Your task to perform on an android device: change text size in settings app Image 0: 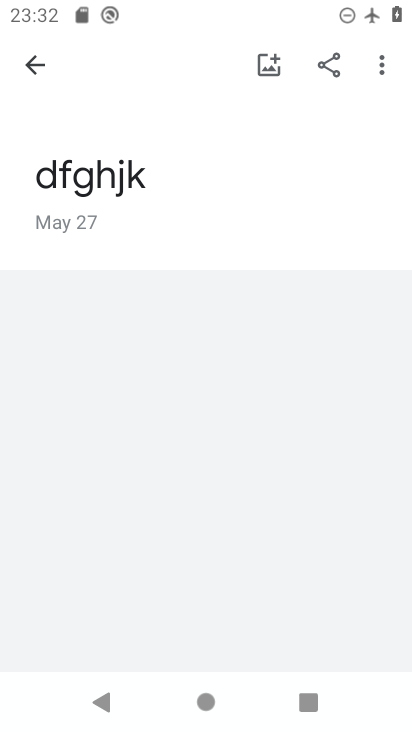
Step 0: press home button
Your task to perform on an android device: change text size in settings app Image 1: 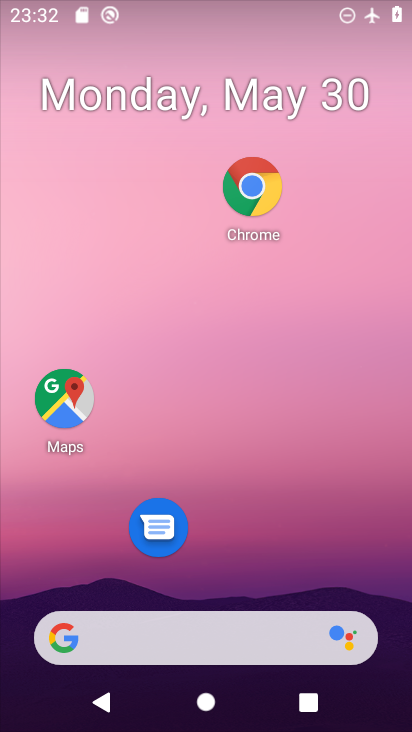
Step 1: drag from (260, 585) to (240, 300)
Your task to perform on an android device: change text size in settings app Image 2: 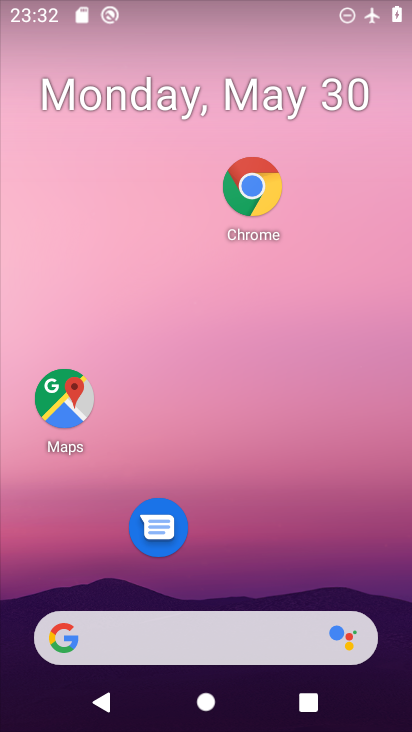
Step 2: drag from (259, 474) to (250, 216)
Your task to perform on an android device: change text size in settings app Image 3: 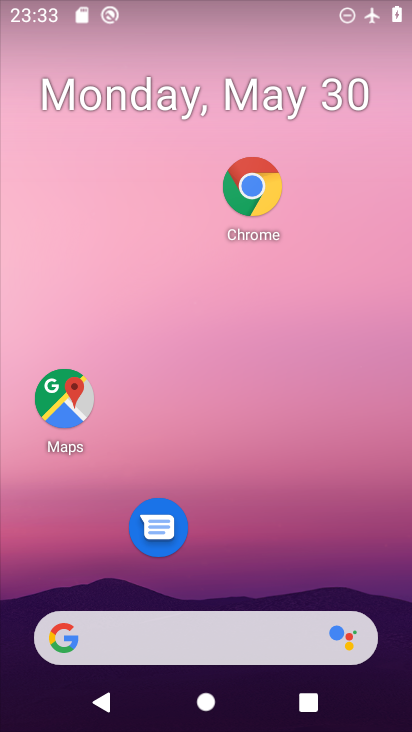
Step 3: drag from (211, 569) to (233, 262)
Your task to perform on an android device: change text size in settings app Image 4: 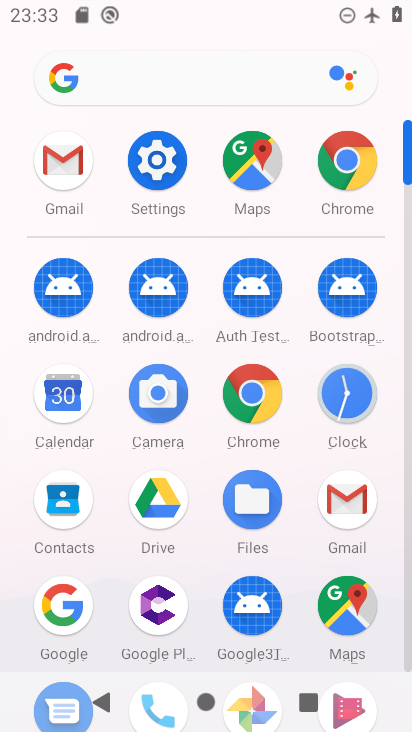
Step 4: click (148, 162)
Your task to perform on an android device: change text size in settings app Image 5: 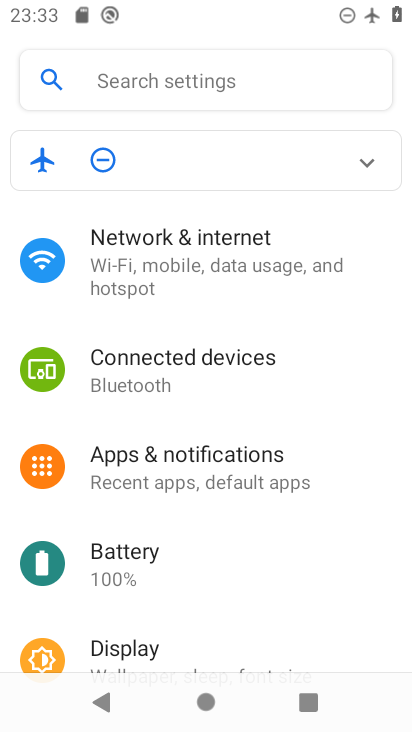
Step 5: drag from (217, 613) to (245, 190)
Your task to perform on an android device: change text size in settings app Image 6: 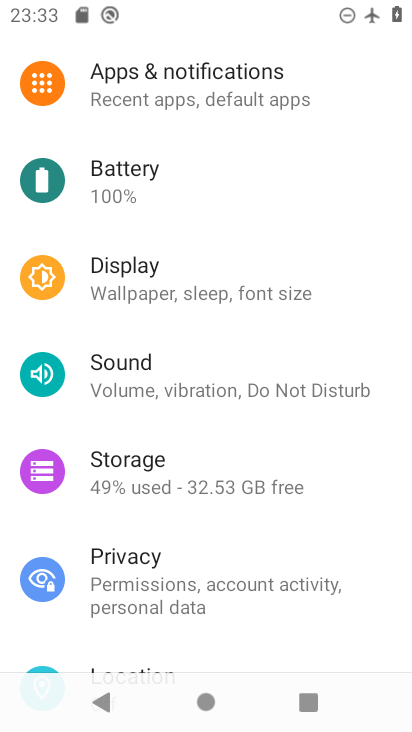
Step 6: drag from (252, 566) to (266, 254)
Your task to perform on an android device: change text size in settings app Image 7: 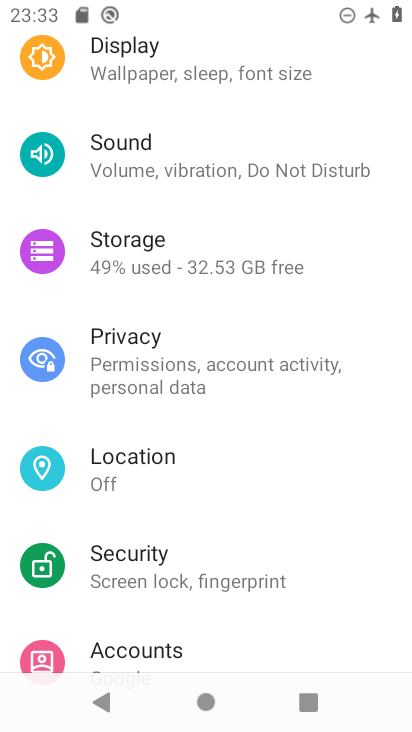
Step 7: drag from (203, 581) to (241, 169)
Your task to perform on an android device: change text size in settings app Image 8: 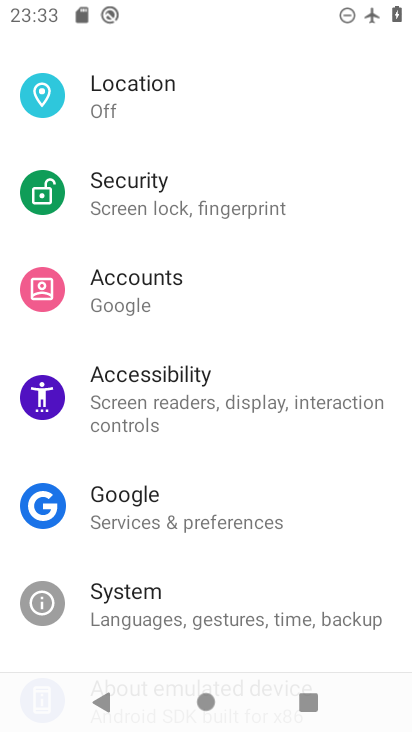
Step 8: drag from (210, 563) to (202, 232)
Your task to perform on an android device: change text size in settings app Image 9: 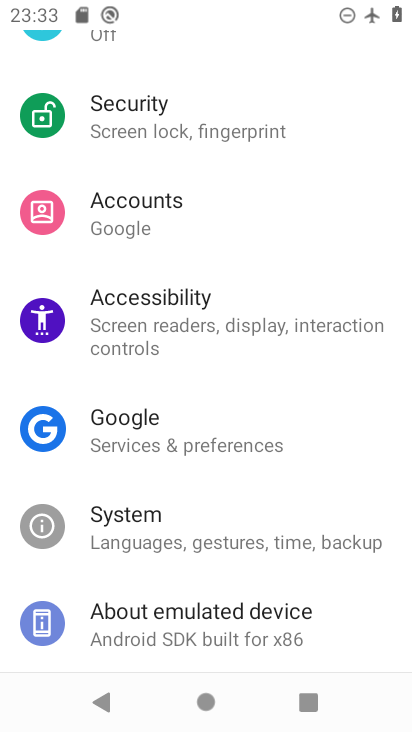
Step 9: click (243, 639)
Your task to perform on an android device: change text size in settings app Image 10: 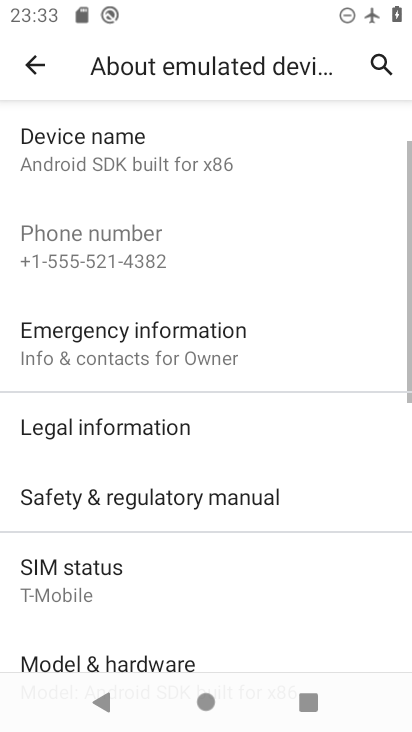
Step 10: drag from (246, 548) to (255, 202)
Your task to perform on an android device: change text size in settings app Image 11: 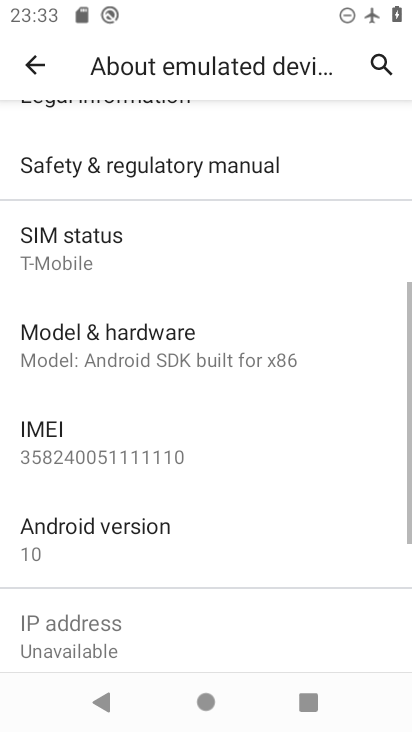
Step 11: drag from (167, 549) to (262, 217)
Your task to perform on an android device: change text size in settings app Image 12: 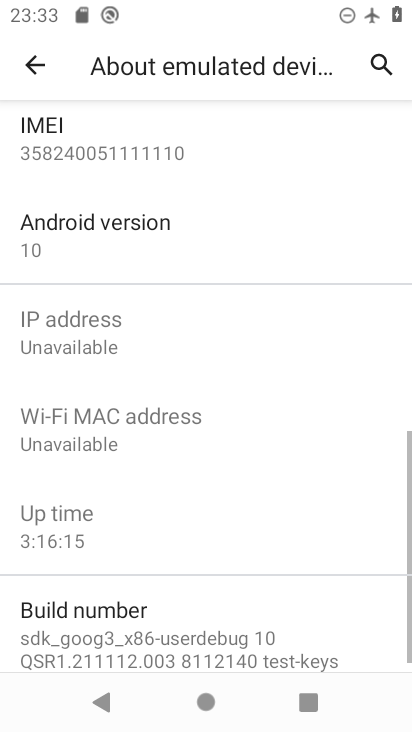
Step 12: click (29, 57)
Your task to perform on an android device: change text size in settings app Image 13: 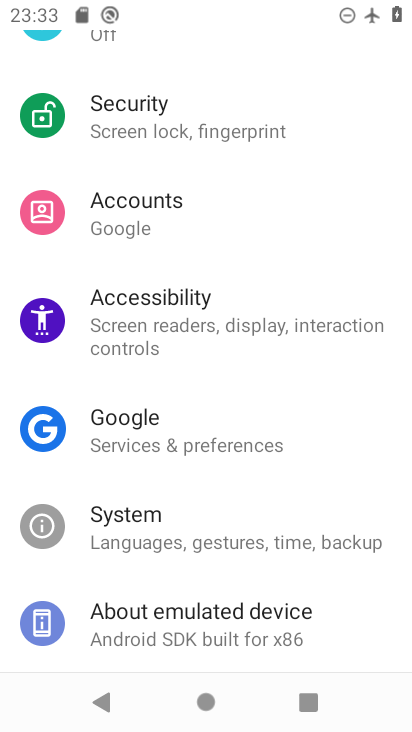
Step 13: drag from (209, 133) to (225, 612)
Your task to perform on an android device: change text size in settings app Image 14: 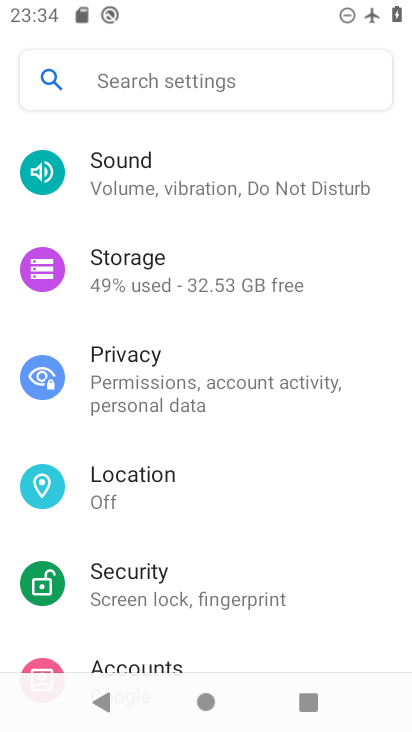
Step 14: drag from (231, 205) to (277, 201)
Your task to perform on an android device: change text size in settings app Image 15: 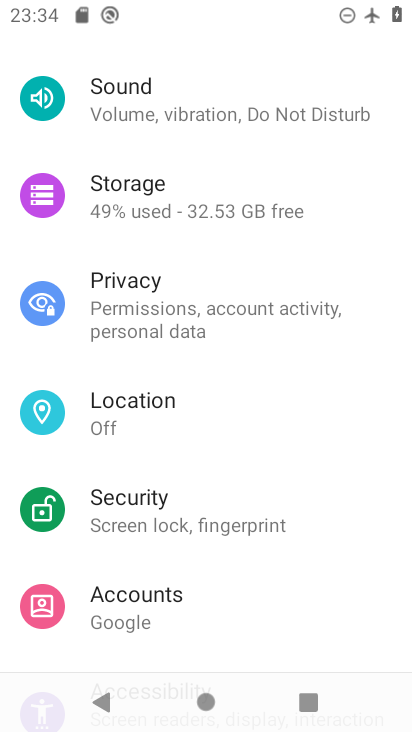
Step 15: drag from (160, 576) to (283, 261)
Your task to perform on an android device: change text size in settings app Image 16: 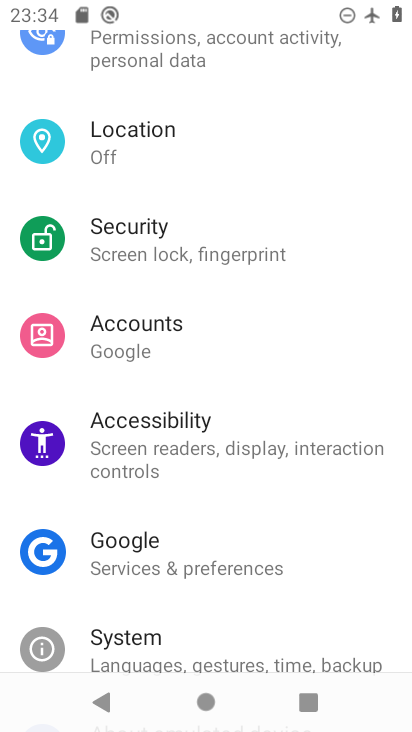
Step 16: drag from (222, 580) to (275, 402)
Your task to perform on an android device: change text size in settings app Image 17: 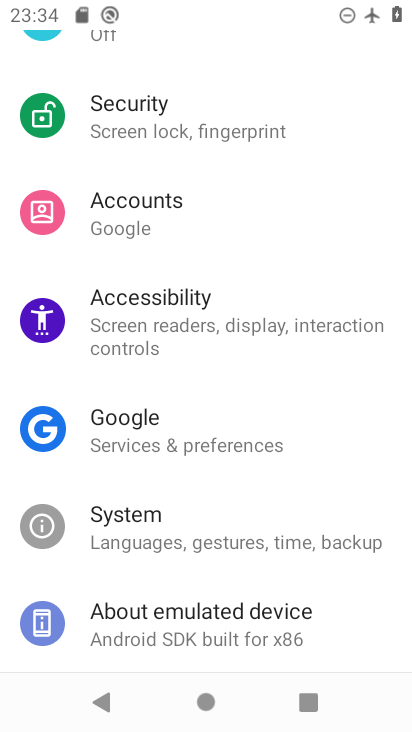
Step 17: click (212, 534)
Your task to perform on an android device: change text size in settings app Image 18: 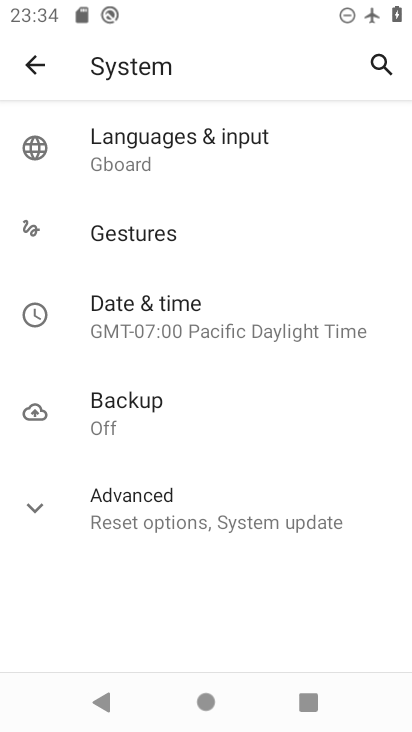
Step 18: click (31, 58)
Your task to perform on an android device: change text size in settings app Image 19: 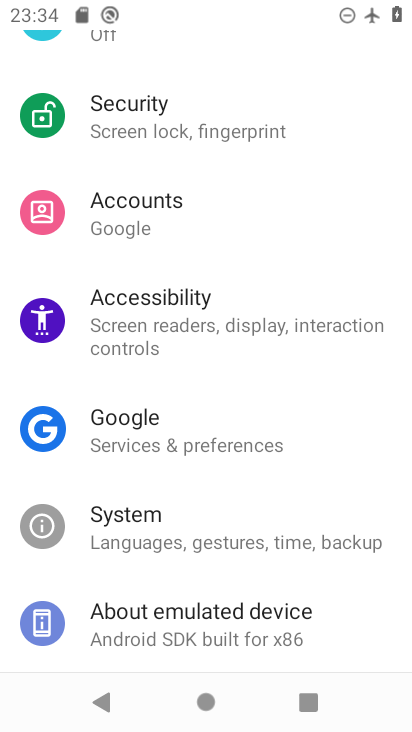
Step 19: click (155, 316)
Your task to perform on an android device: change text size in settings app Image 20: 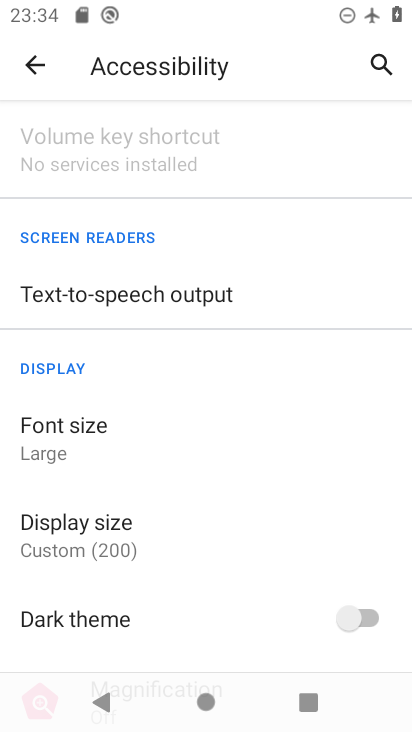
Step 20: click (102, 429)
Your task to perform on an android device: change text size in settings app Image 21: 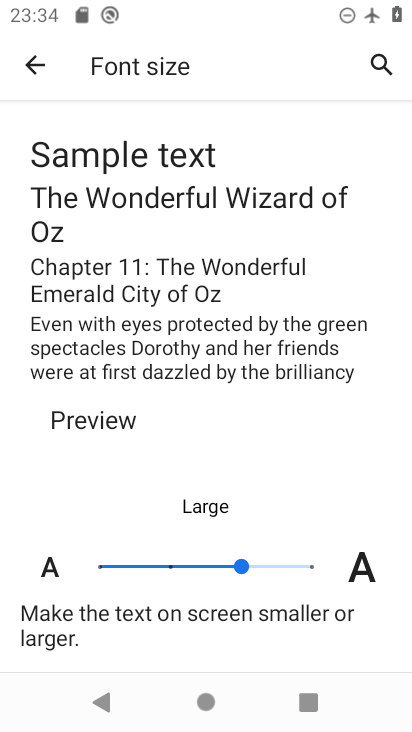
Step 21: click (177, 571)
Your task to perform on an android device: change text size in settings app Image 22: 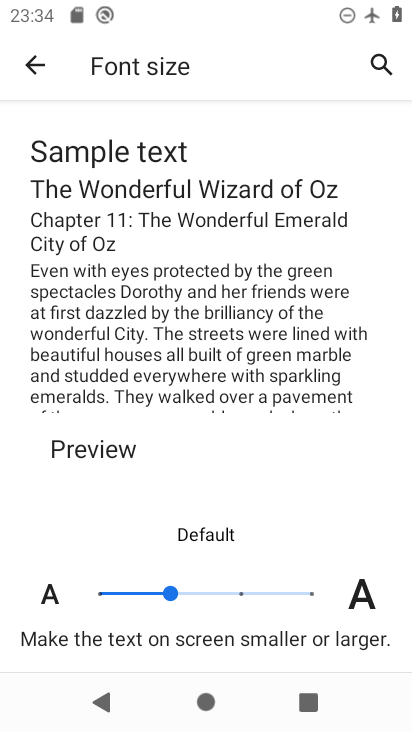
Step 22: task complete